Your task to perform on an android device: change alarm snooze length Image 0: 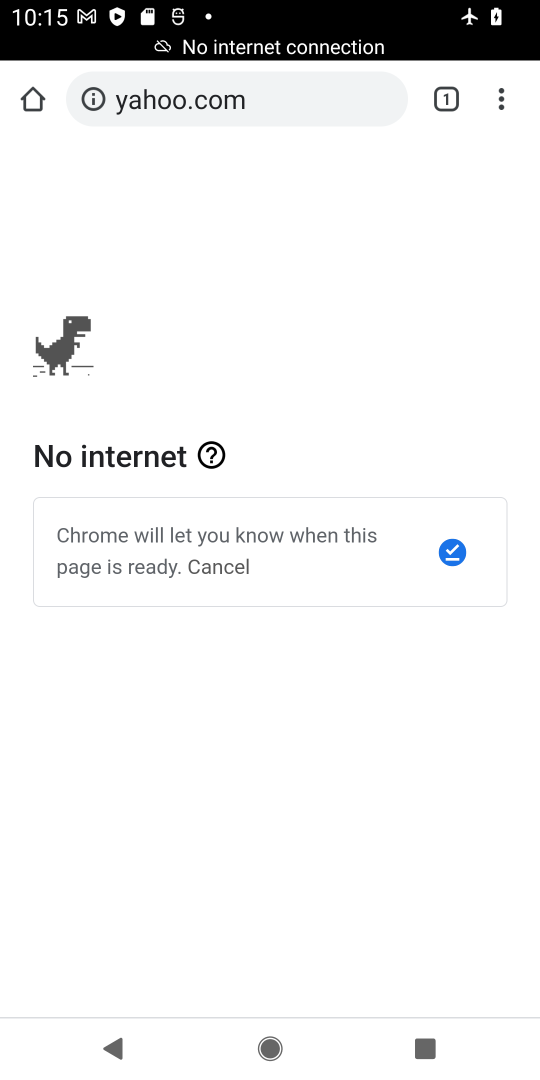
Step 0: press home button
Your task to perform on an android device: change alarm snooze length Image 1: 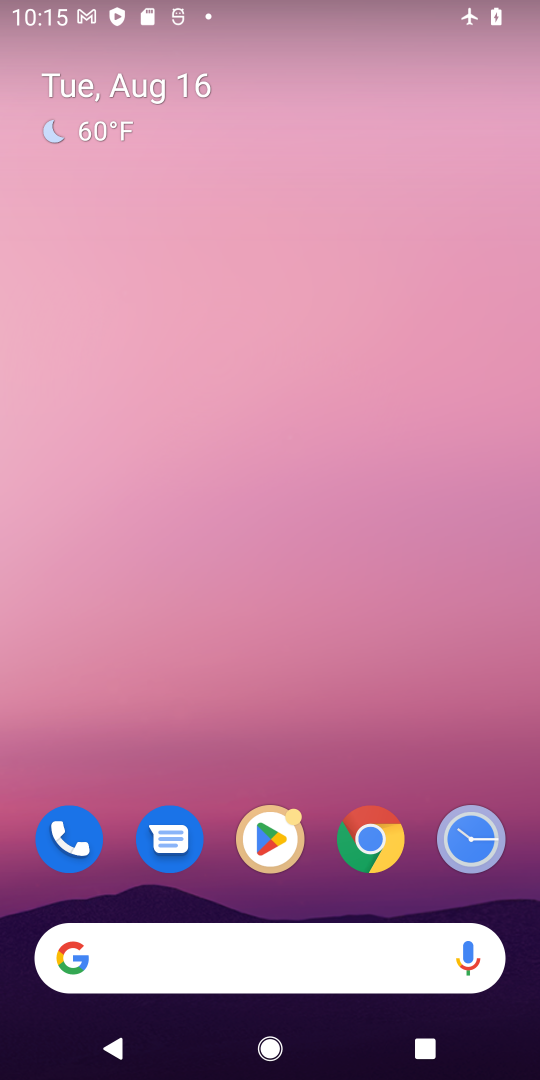
Step 1: drag from (311, 890) to (517, 19)
Your task to perform on an android device: change alarm snooze length Image 2: 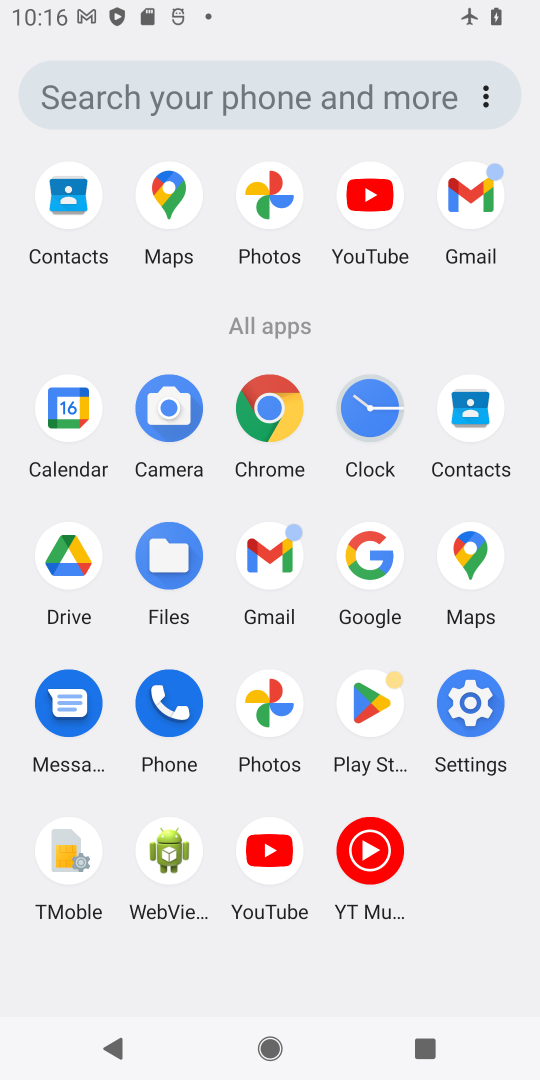
Step 2: click (369, 433)
Your task to perform on an android device: change alarm snooze length Image 3: 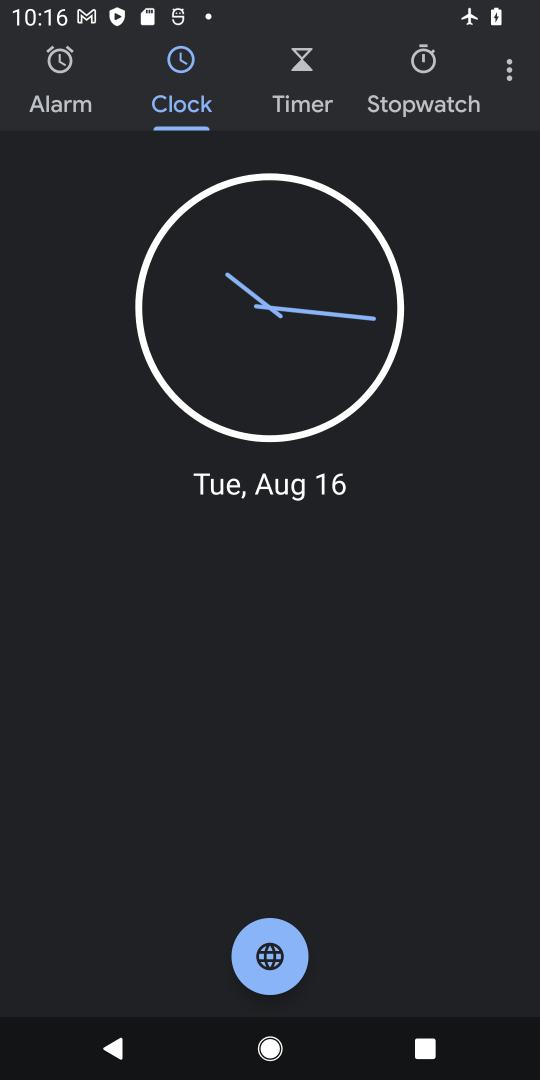
Step 3: click (496, 79)
Your task to perform on an android device: change alarm snooze length Image 4: 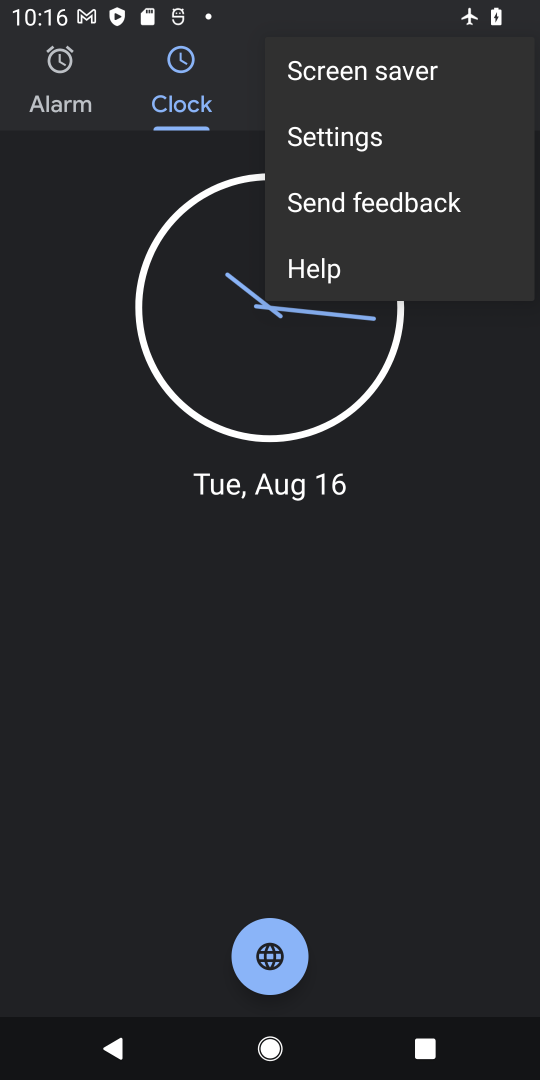
Step 4: click (391, 129)
Your task to perform on an android device: change alarm snooze length Image 5: 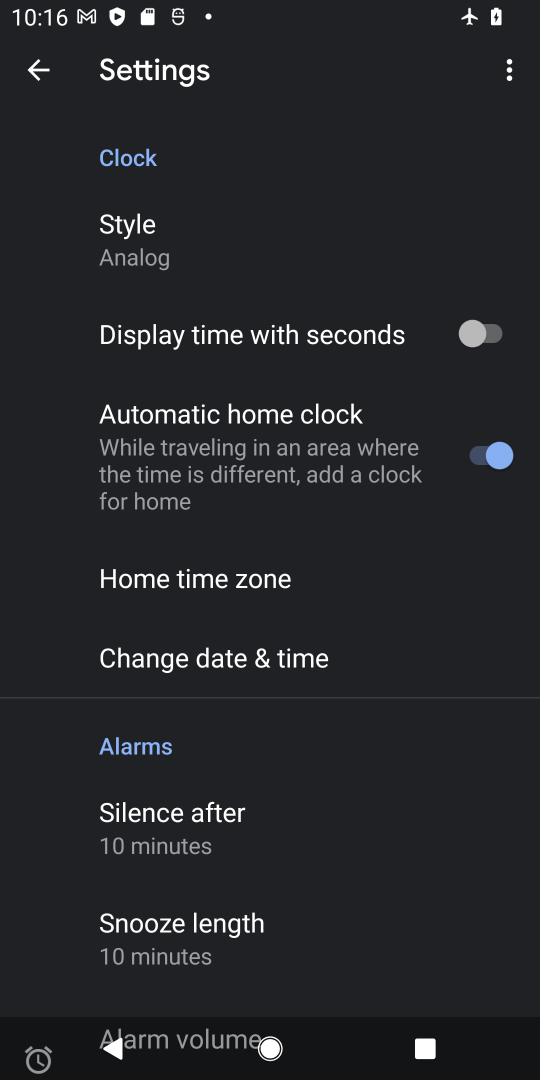
Step 5: drag from (177, 740) to (170, 646)
Your task to perform on an android device: change alarm snooze length Image 6: 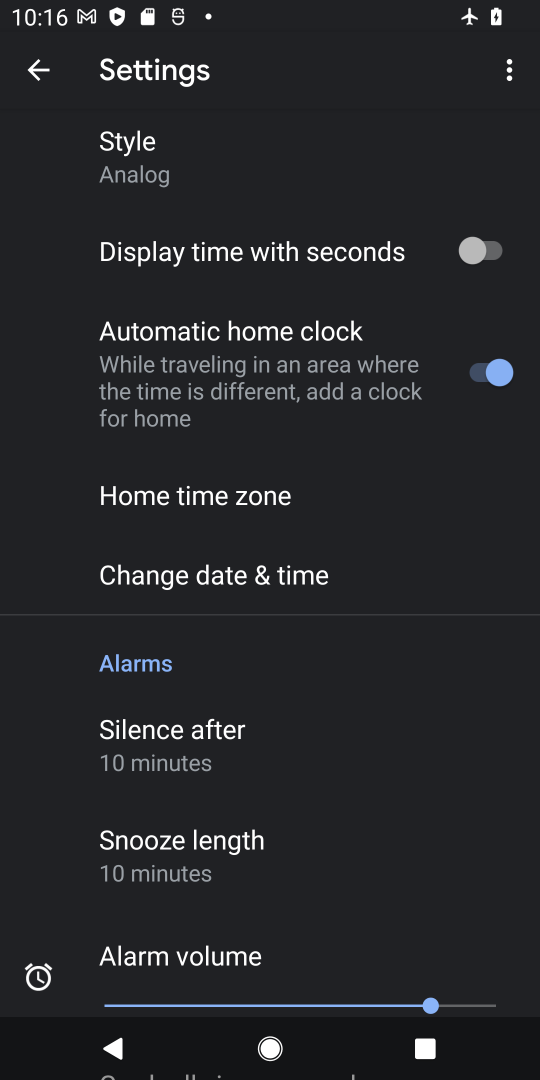
Step 6: click (182, 854)
Your task to perform on an android device: change alarm snooze length Image 7: 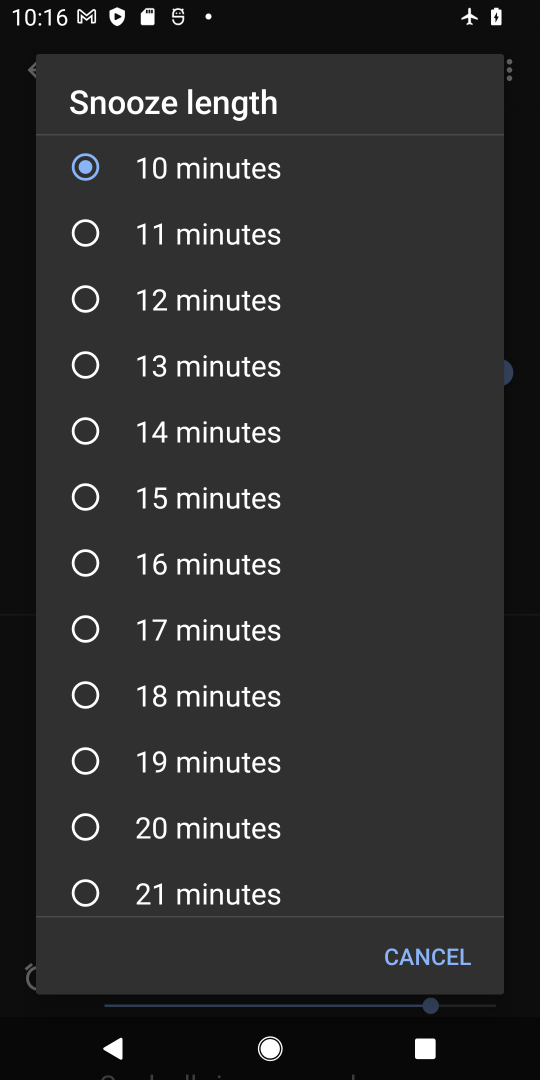
Step 7: click (162, 429)
Your task to perform on an android device: change alarm snooze length Image 8: 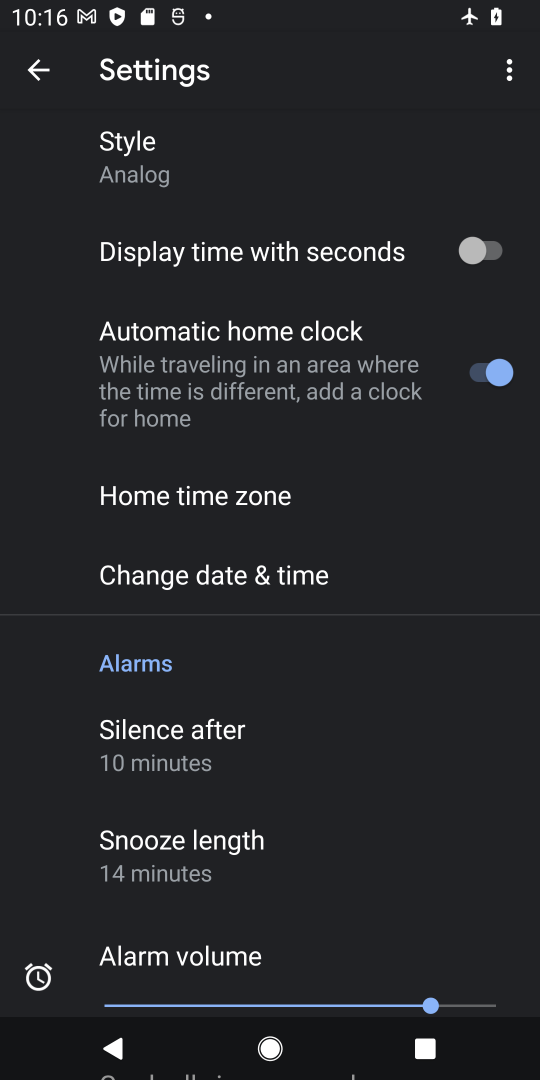
Step 8: task complete